Your task to perform on an android device: change notification settings in the gmail app Image 0: 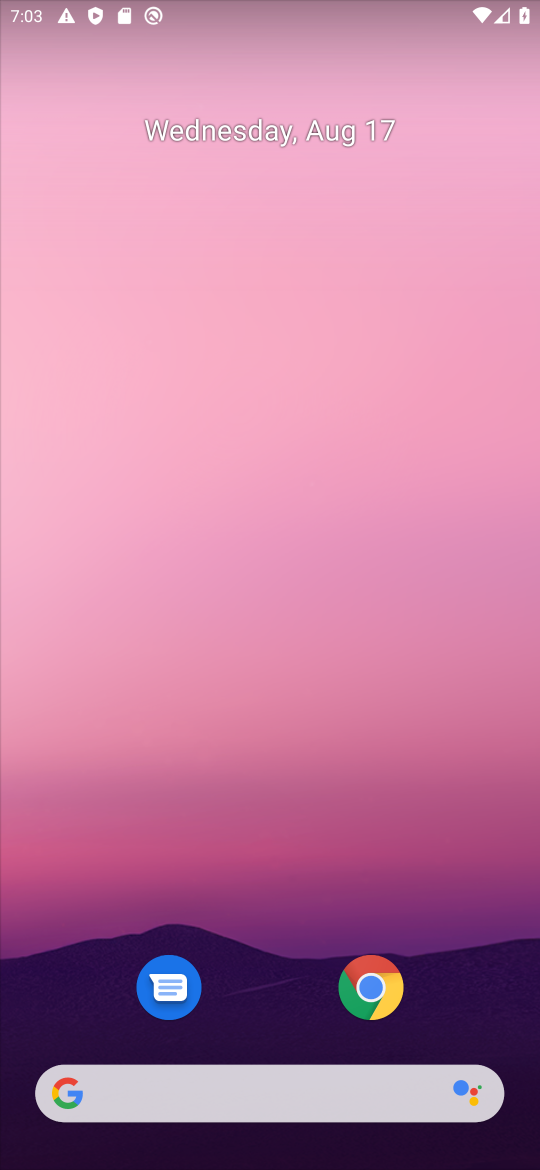
Step 0: drag from (487, 972) to (139, 42)
Your task to perform on an android device: change notification settings in the gmail app Image 1: 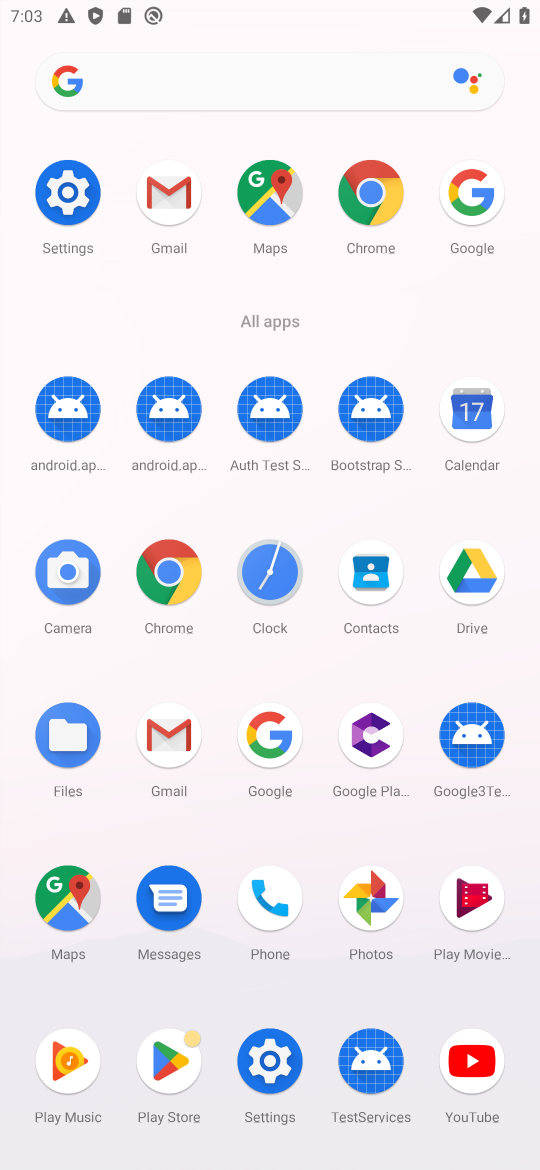
Step 1: click (151, 721)
Your task to perform on an android device: change notification settings in the gmail app Image 2: 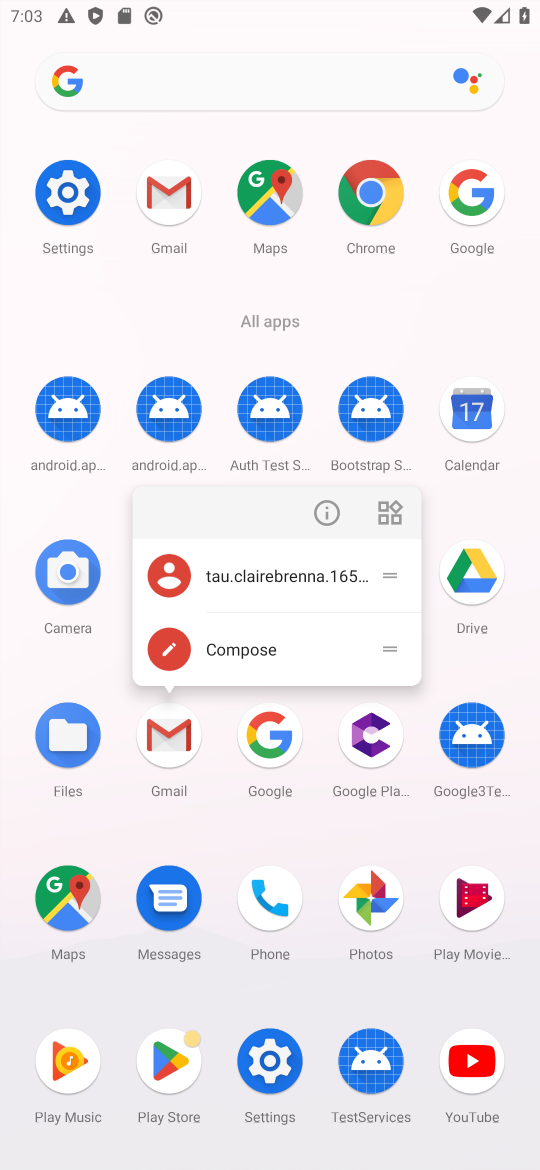
Step 2: click (181, 754)
Your task to perform on an android device: change notification settings in the gmail app Image 3: 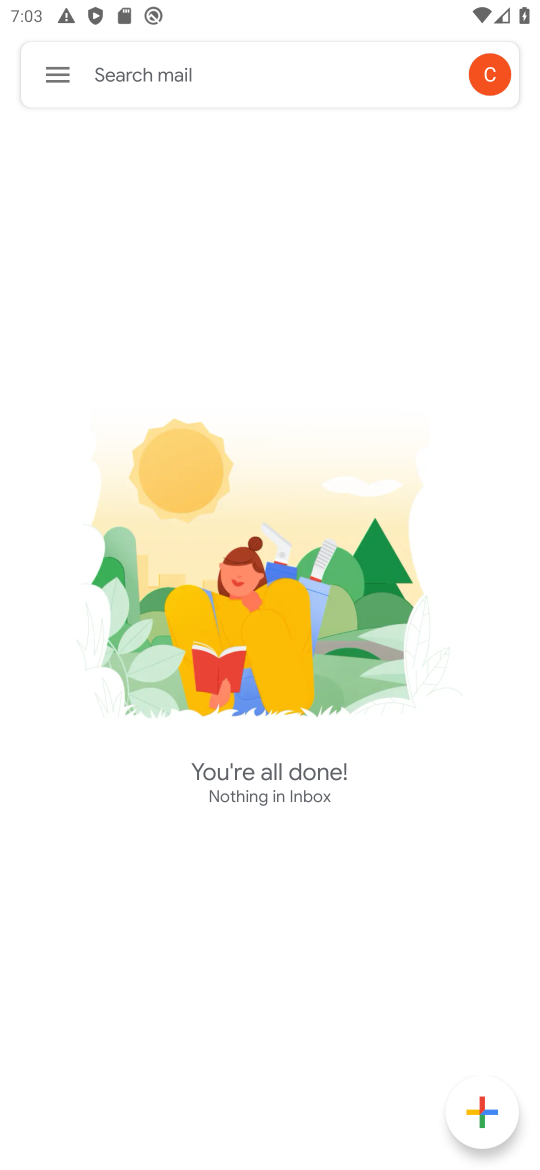
Step 3: click (75, 56)
Your task to perform on an android device: change notification settings in the gmail app Image 4: 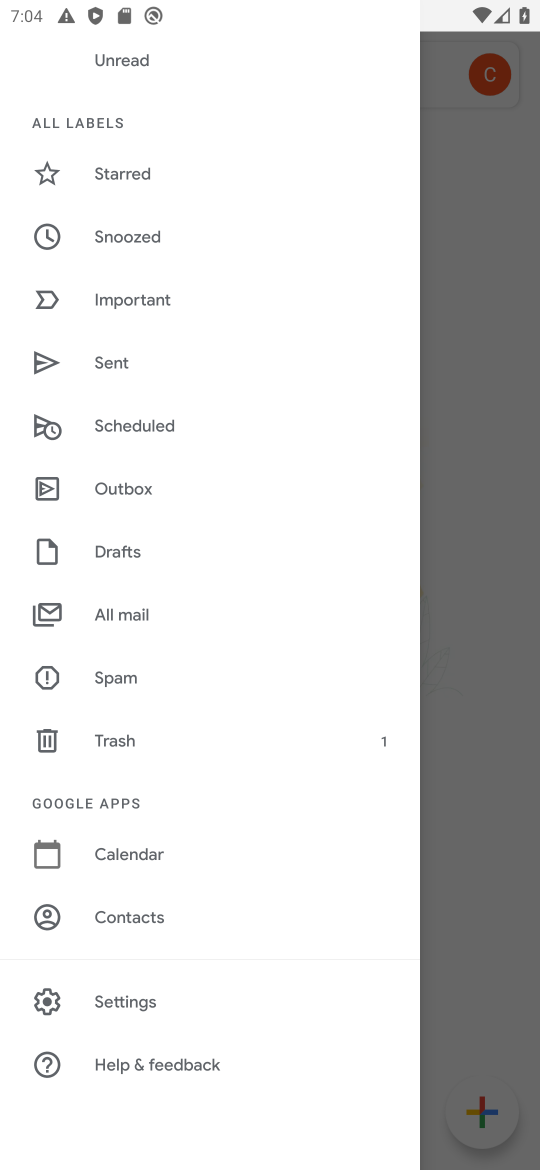
Step 4: click (112, 1005)
Your task to perform on an android device: change notification settings in the gmail app Image 5: 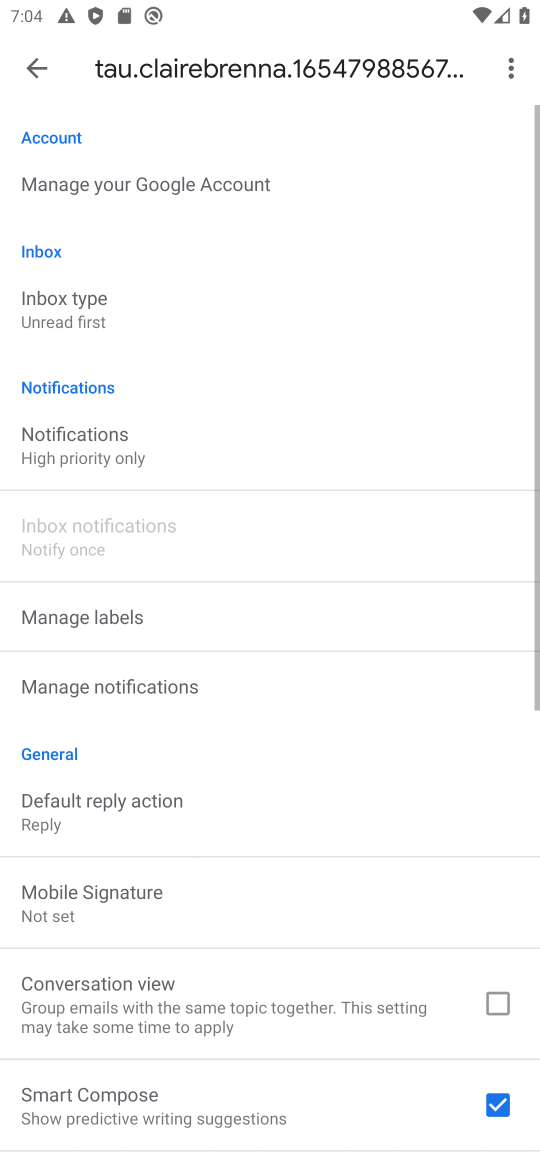
Step 5: click (91, 457)
Your task to perform on an android device: change notification settings in the gmail app Image 6: 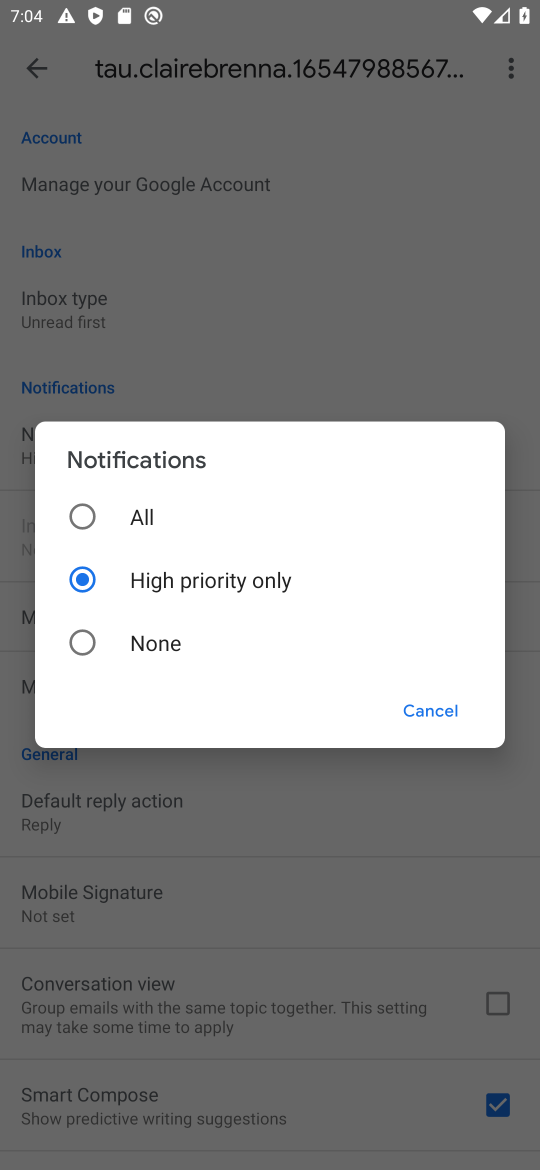
Step 6: click (99, 516)
Your task to perform on an android device: change notification settings in the gmail app Image 7: 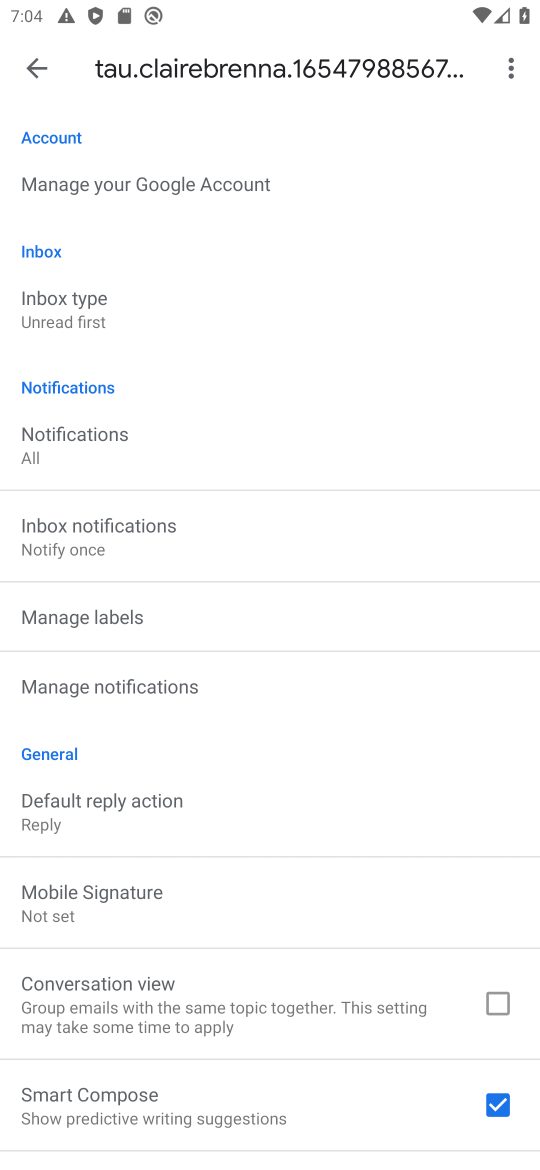
Step 7: task complete